Your task to perform on an android device: What's the weather like in Mexico City? Image 0: 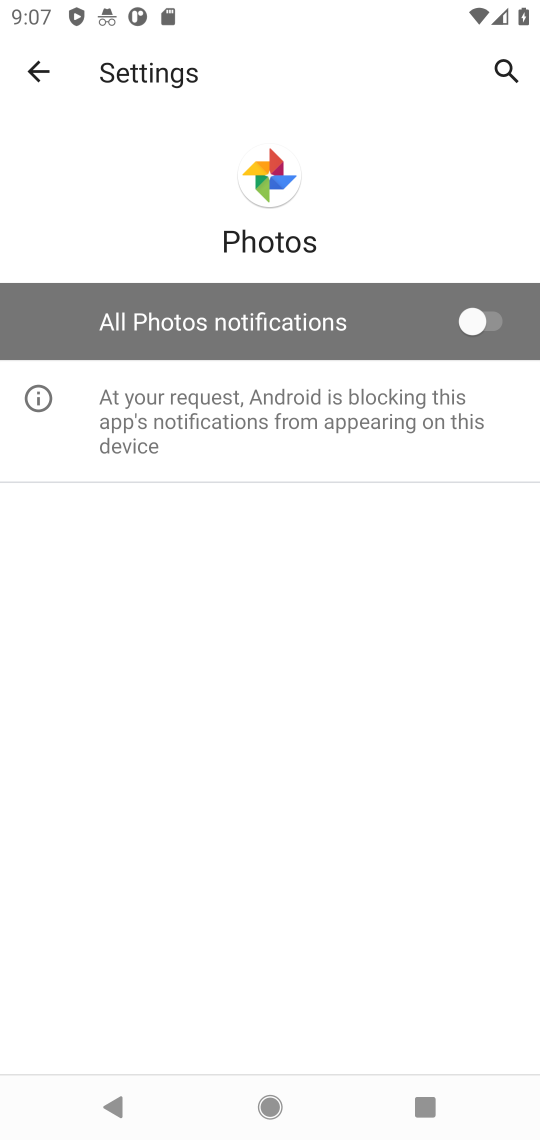
Step 0: press home button
Your task to perform on an android device: What's the weather like in Mexico City? Image 1: 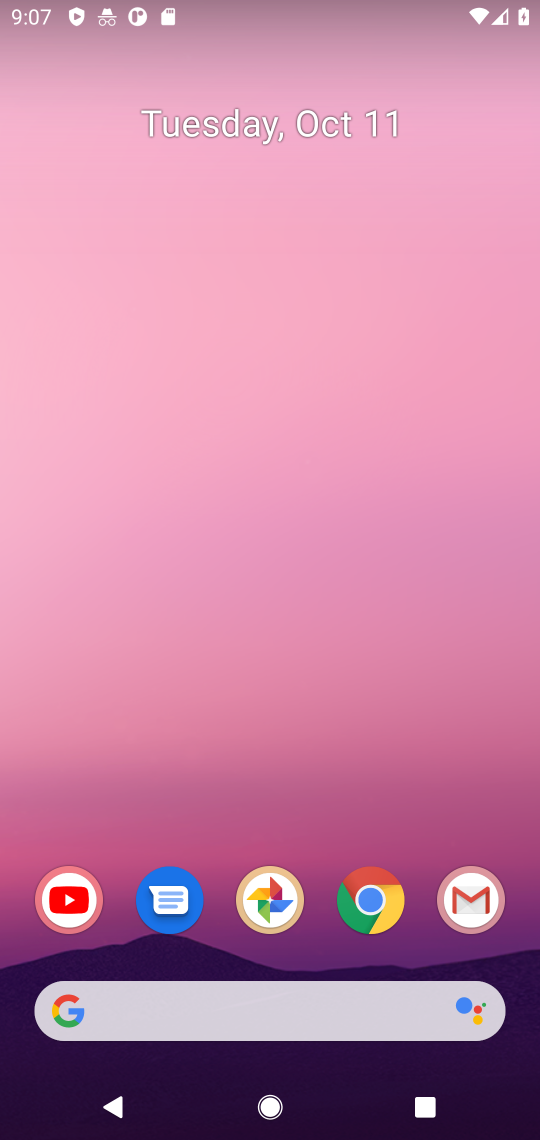
Step 1: click (373, 898)
Your task to perform on an android device: What's the weather like in Mexico City? Image 2: 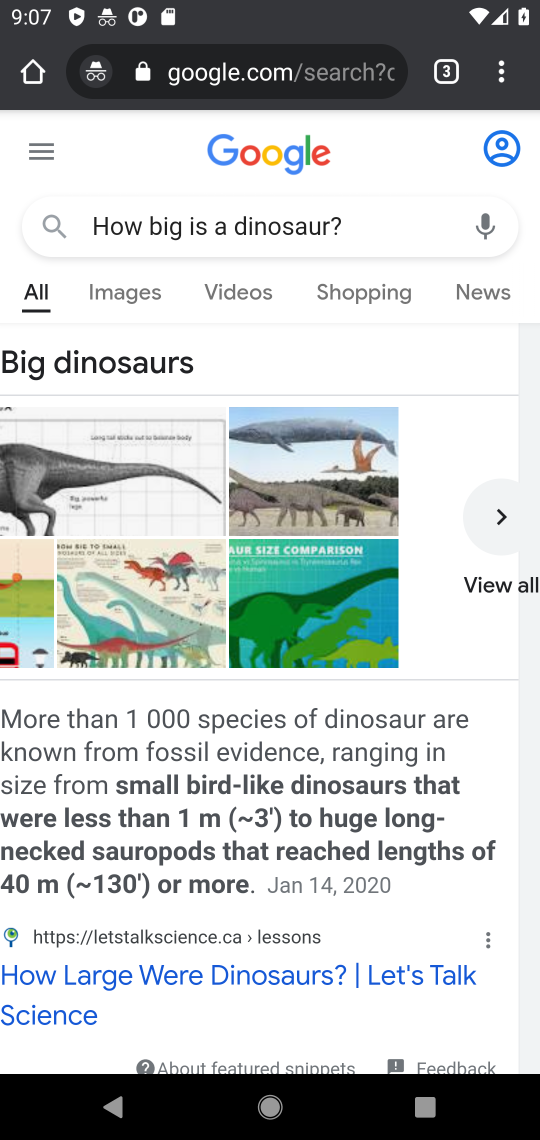
Step 2: click (254, 69)
Your task to perform on an android device: What's the weather like in Mexico City? Image 3: 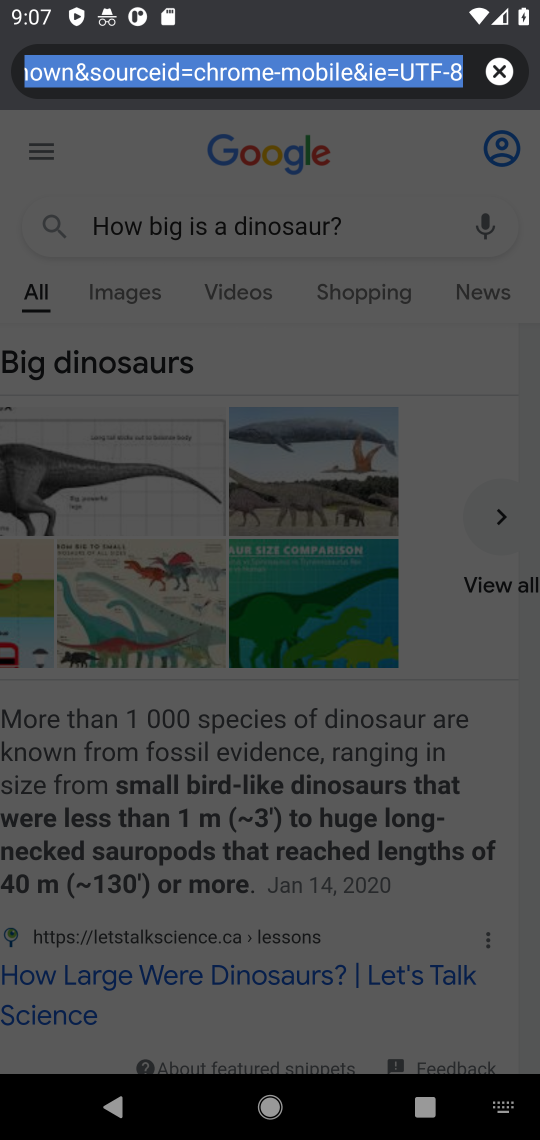
Step 3: type "weather like in Mexico City"
Your task to perform on an android device: What's the weather like in Mexico City? Image 4: 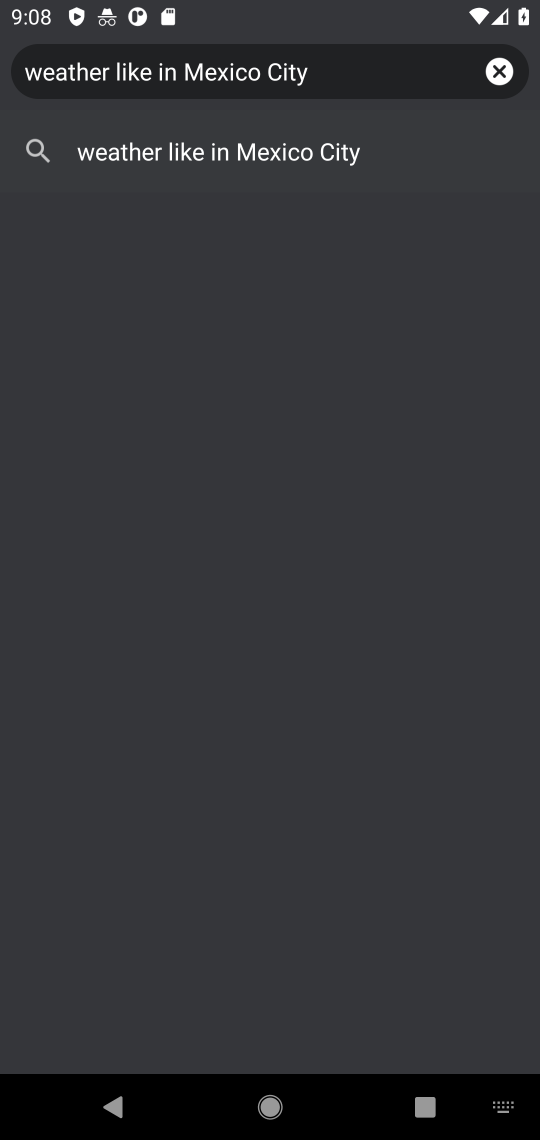
Step 4: click (311, 155)
Your task to perform on an android device: What's the weather like in Mexico City? Image 5: 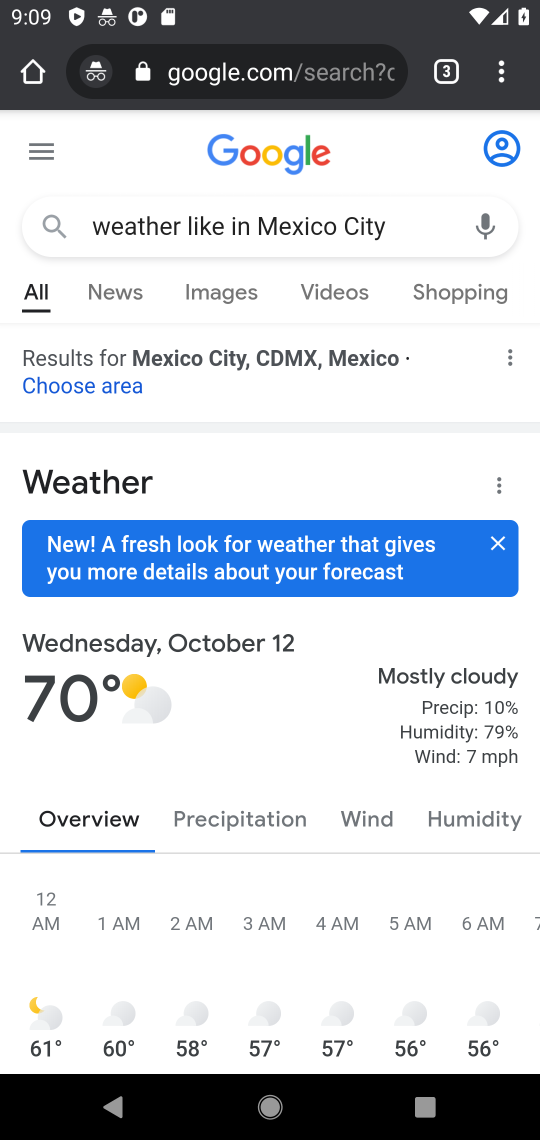
Step 5: task complete